Your task to perform on an android device: change notification settings in the gmail app Image 0: 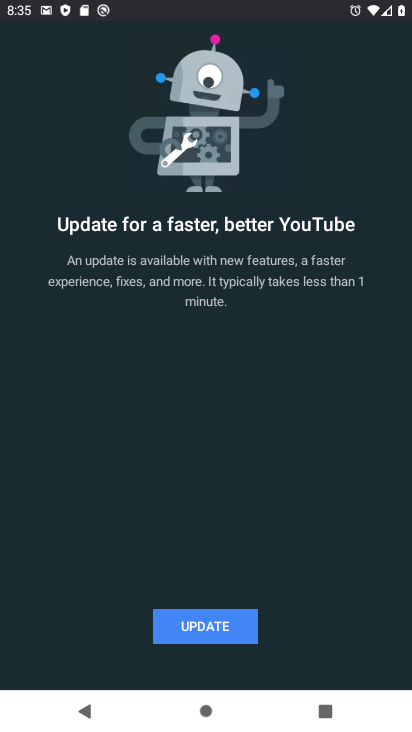
Step 0: press home button
Your task to perform on an android device: change notification settings in the gmail app Image 1: 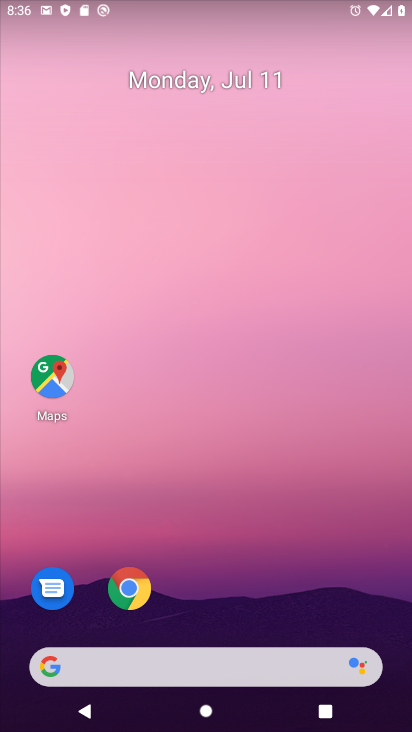
Step 1: drag from (249, 537) to (296, 100)
Your task to perform on an android device: change notification settings in the gmail app Image 2: 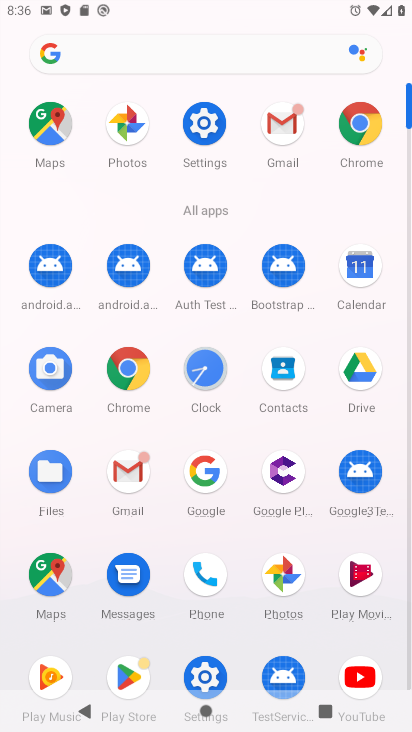
Step 2: click (276, 133)
Your task to perform on an android device: change notification settings in the gmail app Image 3: 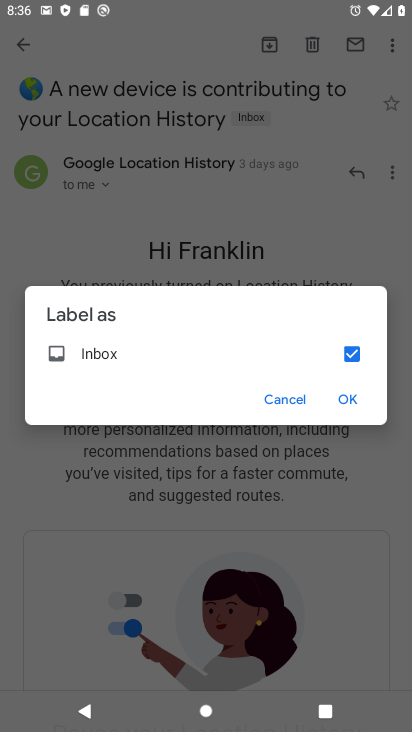
Step 3: click (272, 406)
Your task to perform on an android device: change notification settings in the gmail app Image 4: 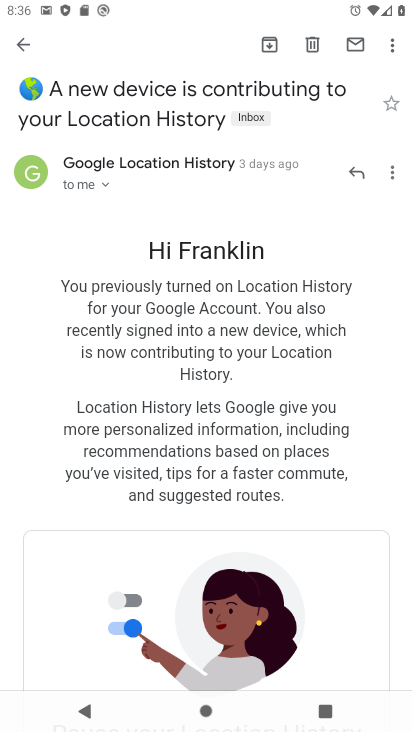
Step 4: click (21, 44)
Your task to perform on an android device: change notification settings in the gmail app Image 5: 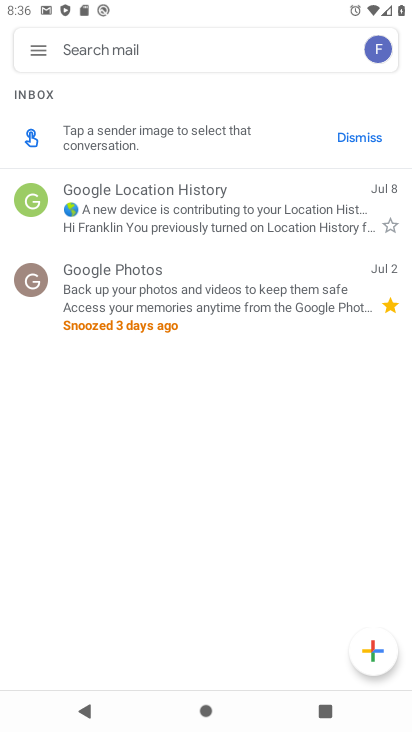
Step 5: click (37, 49)
Your task to perform on an android device: change notification settings in the gmail app Image 6: 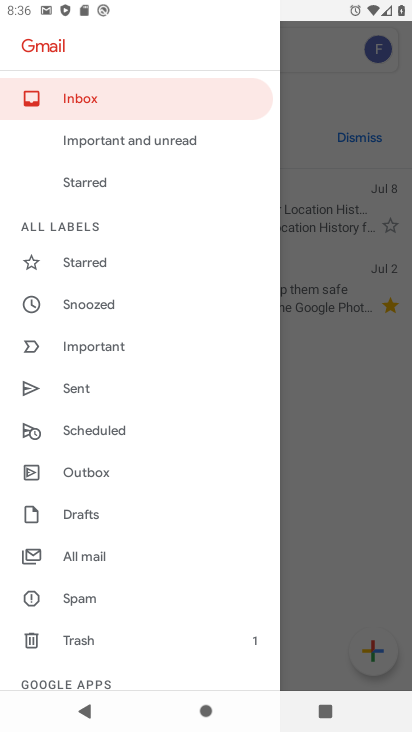
Step 6: drag from (145, 640) to (267, 218)
Your task to perform on an android device: change notification settings in the gmail app Image 7: 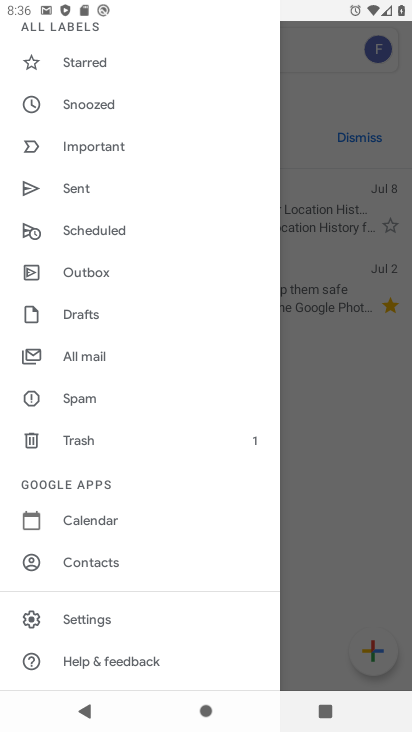
Step 7: click (98, 622)
Your task to perform on an android device: change notification settings in the gmail app Image 8: 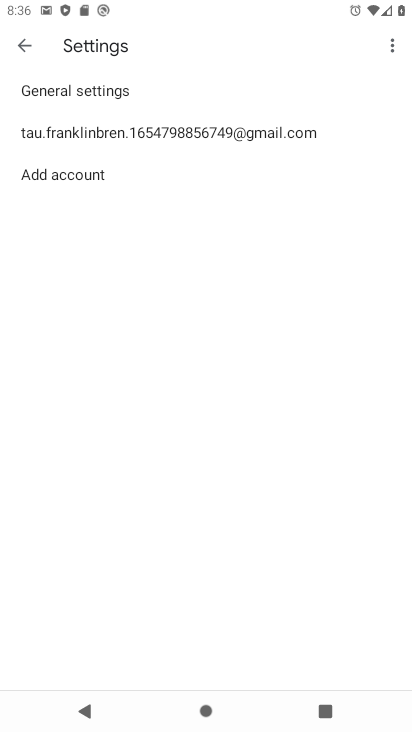
Step 8: click (230, 125)
Your task to perform on an android device: change notification settings in the gmail app Image 9: 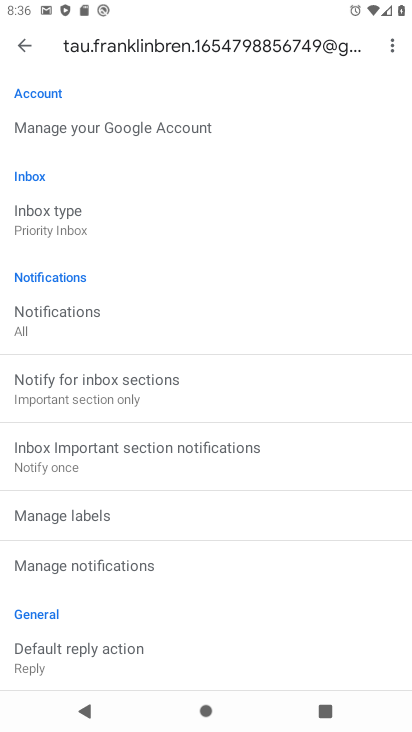
Step 9: click (92, 312)
Your task to perform on an android device: change notification settings in the gmail app Image 10: 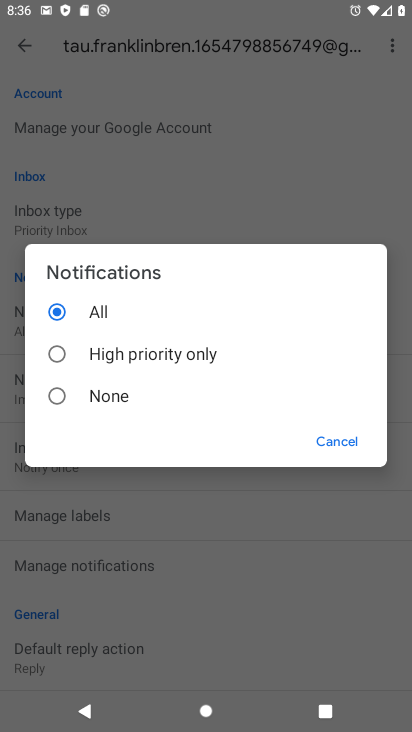
Step 10: click (59, 349)
Your task to perform on an android device: change notification settings in the gmail app Image 11: 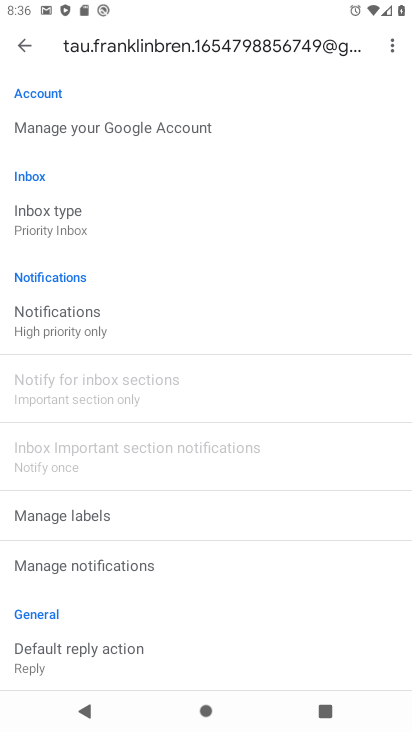
Step 11: task complete